Your task to perform on an android device: empty trash in the gmail app Image 0: 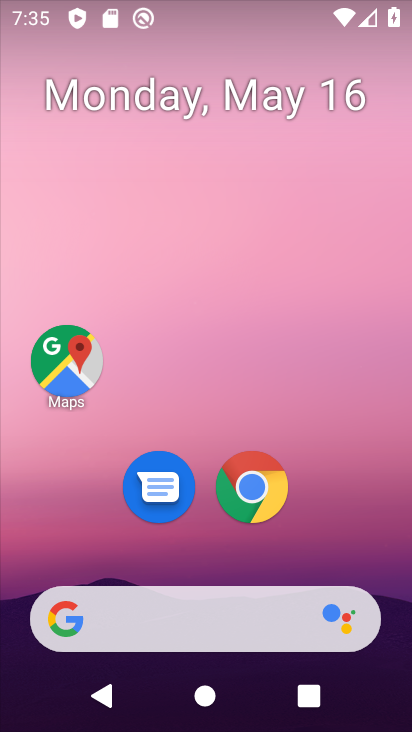
Step 0: drag from (332, 510) to (339, 40)
Your task to perform on an android device: empty trash in the gmail app Image 1: 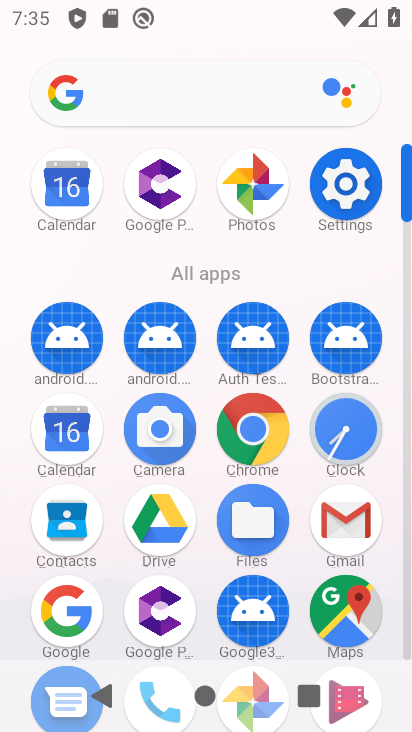
Step 1: click (342, 518)
Your task to perform on an android device: empty trash in the gmail app Image 2: 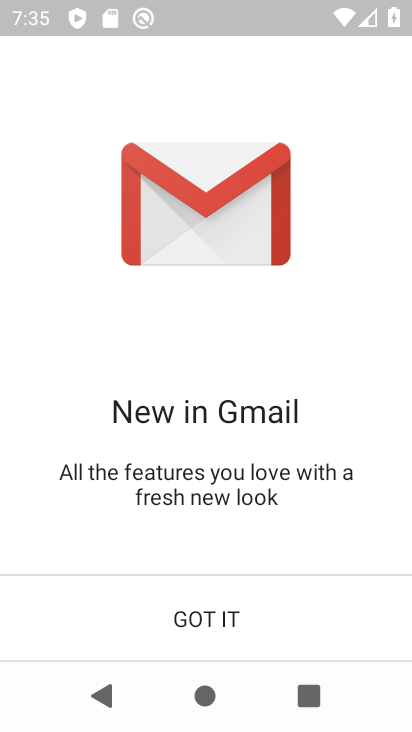
Step 2: click (279, 618)
Your task to perform on an android device: empty trash in the gmail app Image 3: 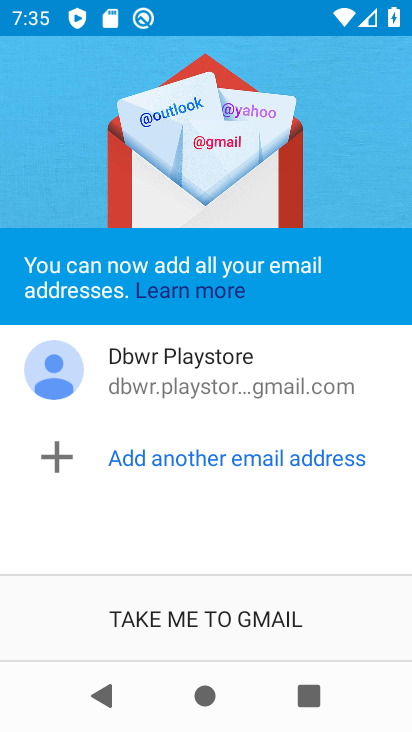
Step 3: click (282, 613)
Your task to perform on an android device: empty trash in the gmail app Image 4: 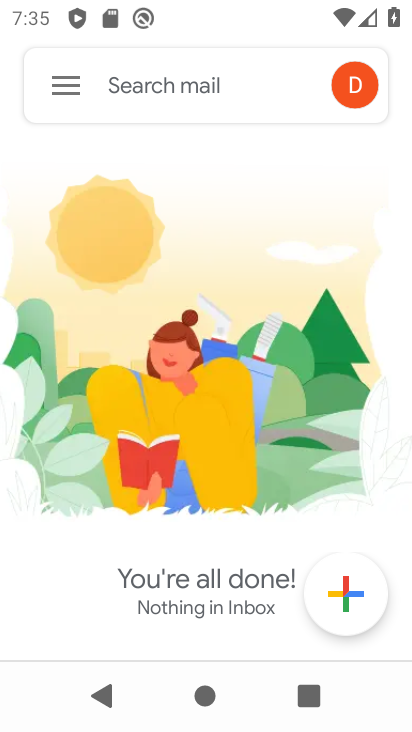
Step 4: click (65, 87)
Your task to perform on an android device: empty trash in the gmail app Image 5: 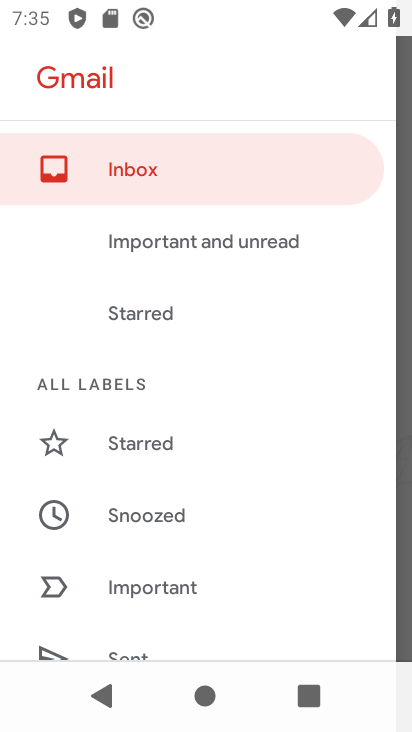
Step 5: drag from (225, 537) to (220, 109)
Your task to perform on an android device: empty trash in the gmail app Image 6: 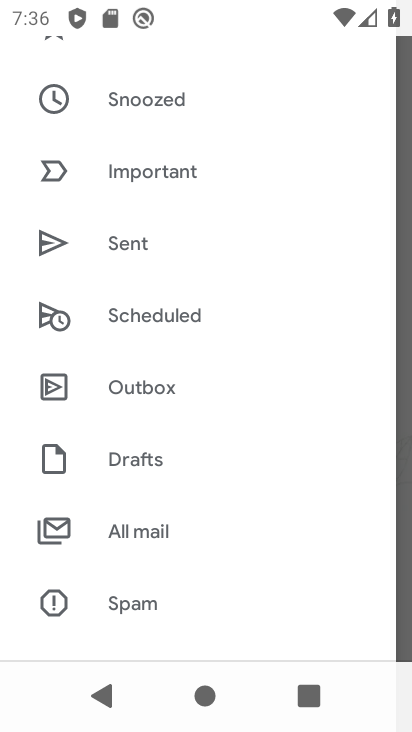
Step 6: drag from (192, 443) to (204, 156)
Your task to perform on an android device: empty trash in the gmail app Image 7: 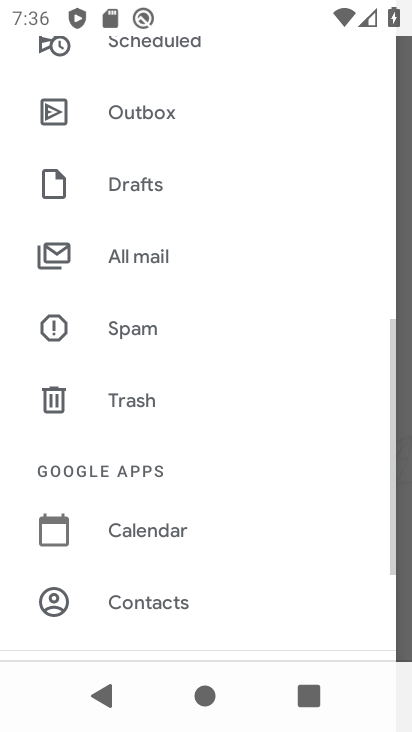
Step 7: click (204, 429)
Your task to perform on an android device: empty trash in the gmail app Image 8: 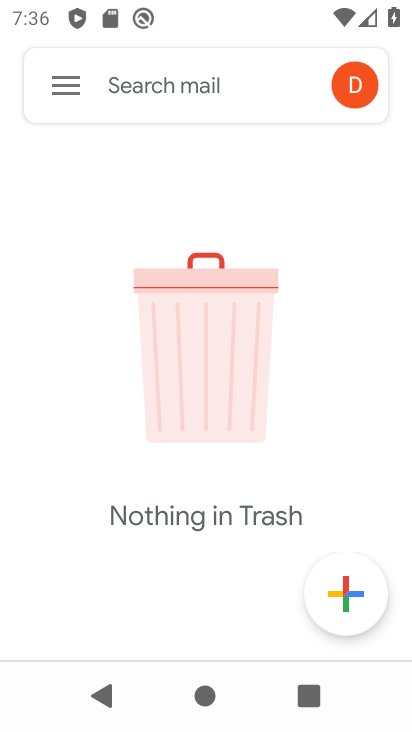
Step 8: task complete